Your task to perform on an android device: toggle notification dots Image 0: 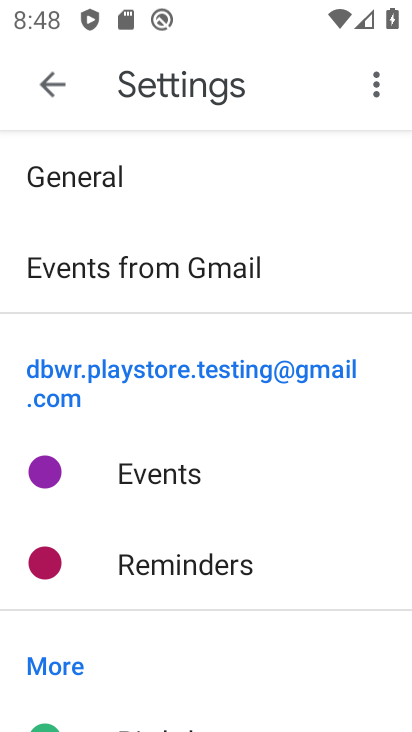
Step 0: press back button
Your task to perform on an android device: toggle notification dots Image 1: 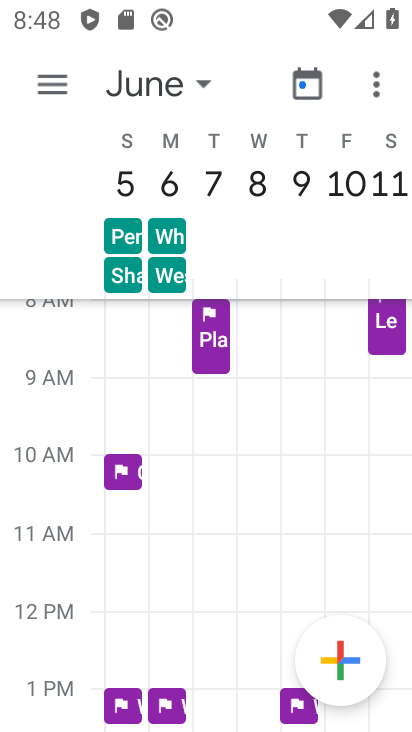
Step 1: press back button
Your task to perform on an android device: toggle notification dots Image 2: 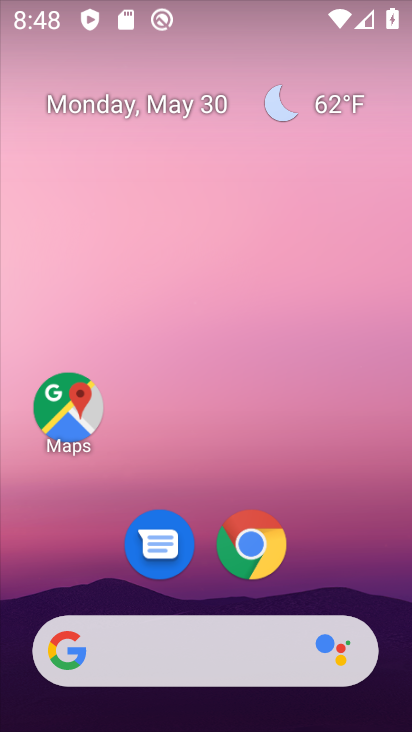
Step 2: drag from (345, 513) to (275, 13)
Your task to perform on an android device: toggle notification dots Image 3: 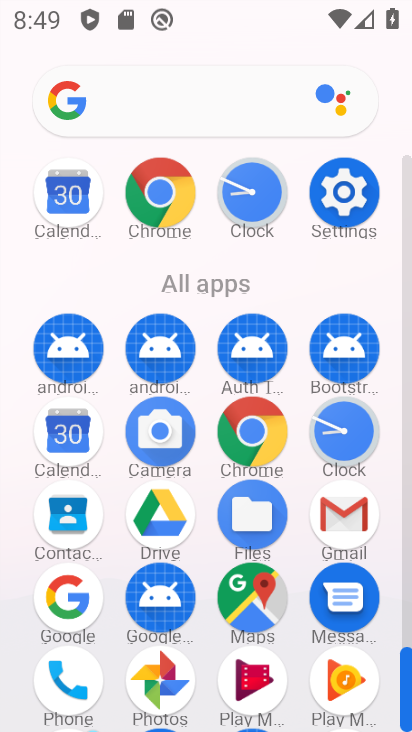
Step 3: click (343, 193)
Your task to perform on an android device: toggle notification dots Image 4: 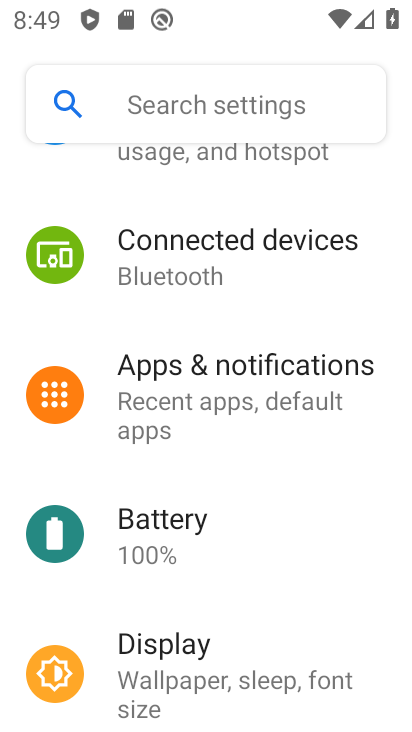
Step 4: click (253, 374)
Your task to perform on an android device: toggle notification dots Image 5: 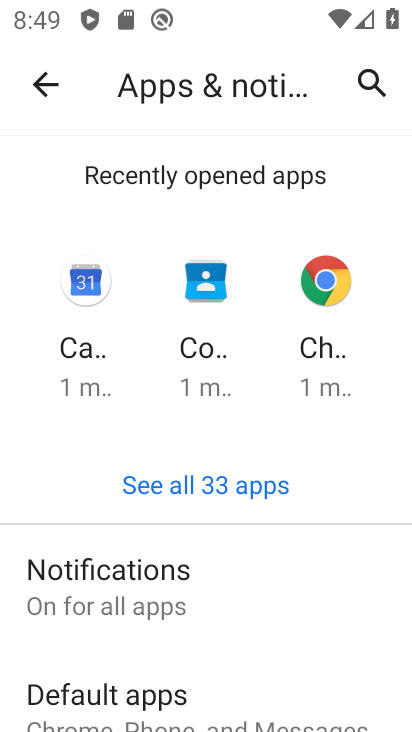
Step 5: click (144, 566)
Your task to perform on an android device: toggle notification dots Image 6: 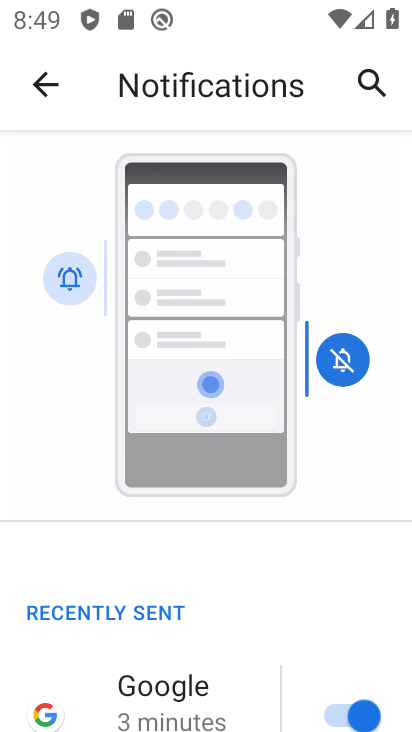
Step 6: drag from (196, 651) to (161, 392)
Your task to perform on an android device: toggle notification dots Image 7: 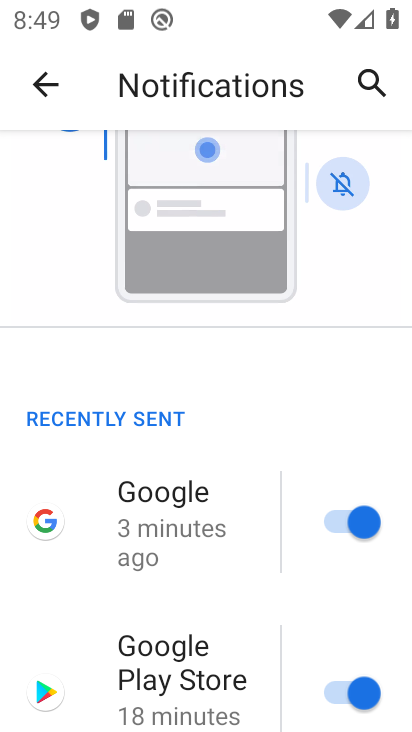
Step 7: drag from (189, 548) to (179, 376)
Your task to perform on an android device: toggle notification dots Image 8: 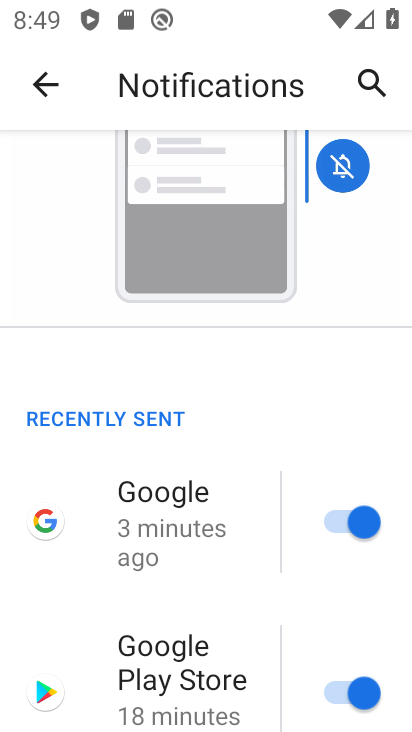
Step 8: click (176, 232)
Your task to perform on an android device: toggle notification dots Image 9: 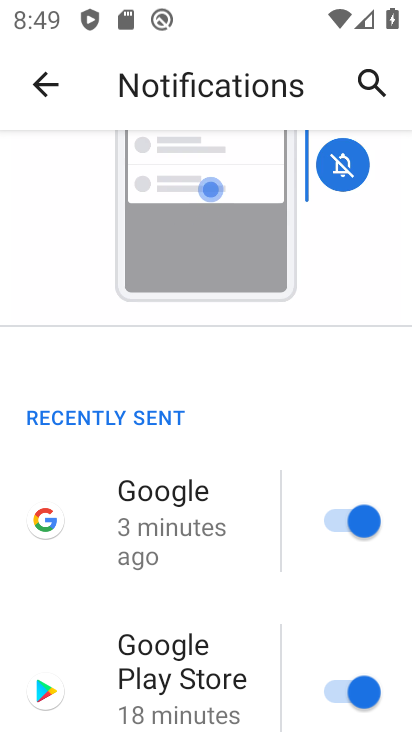
Step 9: drag from (182, 568) to (258, 263)
Your task to perform on an android device: toggle notification dots Image 10: 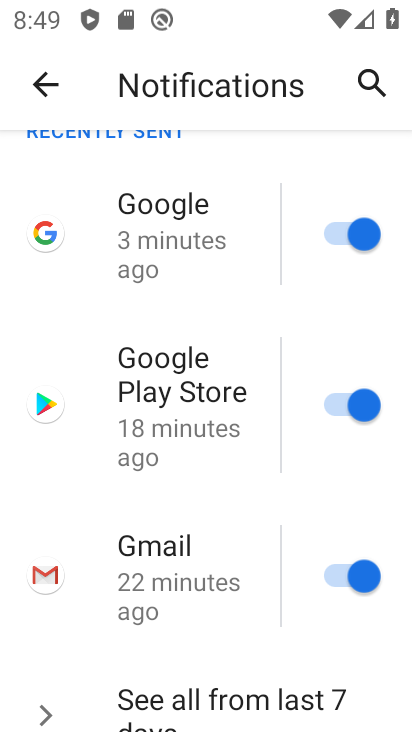
Step 10: drag from (195, 633) to (216, 419)
Your task to perform on an android device: toggle notification dots Image 11: 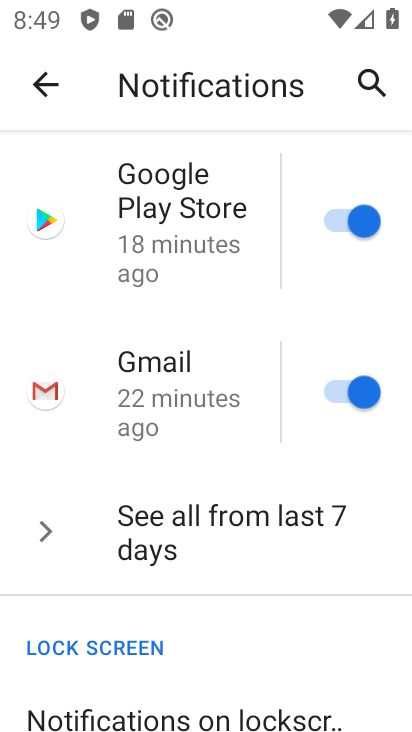
Step 11: drag from (200, 608) to (190, 352)
Your task to perform on an android device: toggle notification dots Image 12: 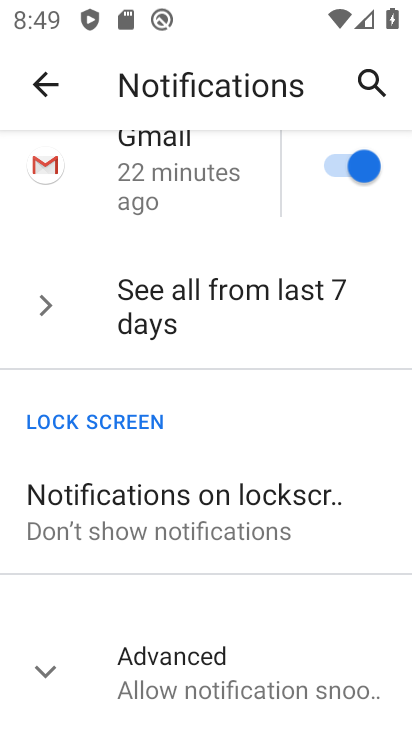
Step 12: click (212, 679)
Your task to perform on an android device: toggle notification dots Image 13: 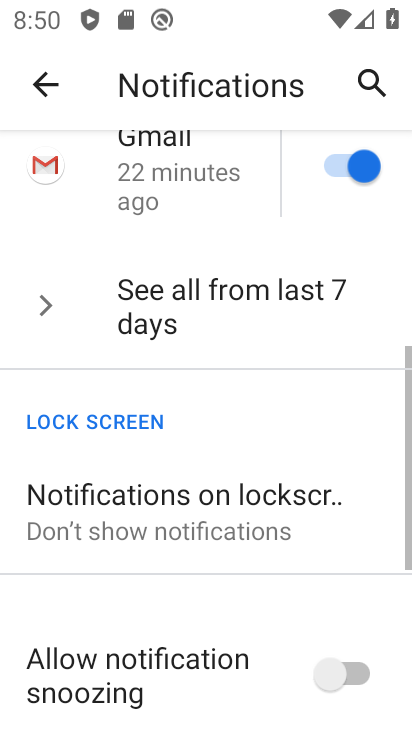
Step 13: drag from (209, 625) to (205, 374)
Your task to perform on an android device: toggle notification dots Image 14: 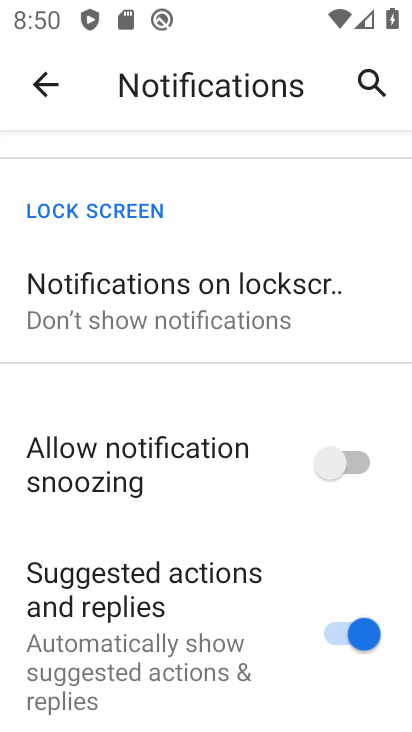
Step 14: drag from (239, 613) to (235, 453)
Your task to perform on an android device: toggle notification dots Image 15: 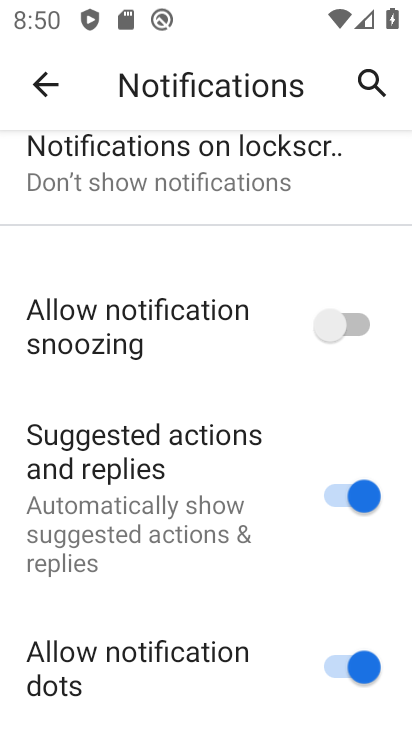
Step 15: drag from (169, 614) to (197, 451)
Your task to perform on an android device: toggle notification dots Image 16: 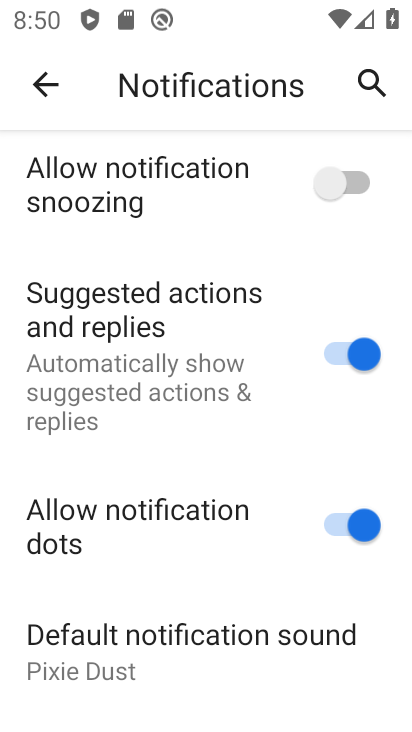
Step 16: click (338, 530)
Your task to perform on an android device: toggle notification dots Image 17: 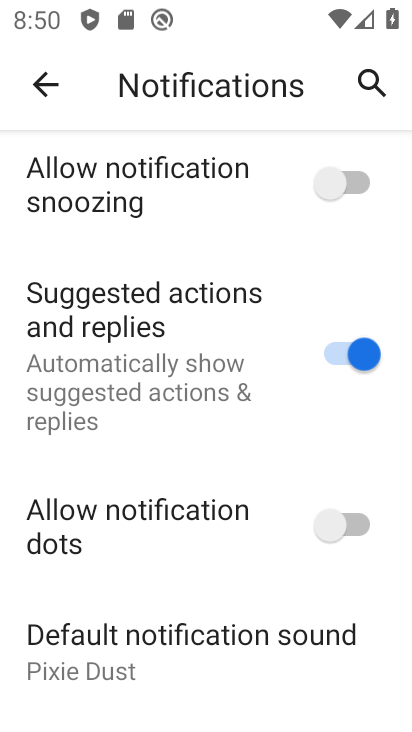
Step 17: task complete